Your task to perform on an android device: Go to accessibility settings Image 0: 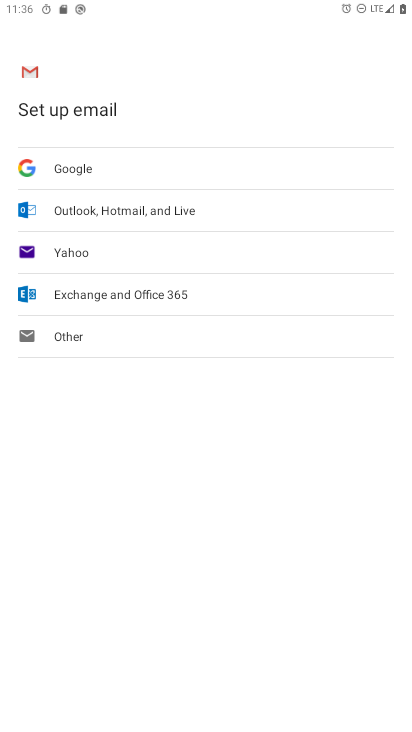
Step 0: press home button
Your task to perform on an android device: Go to accessibility settings Image 1: 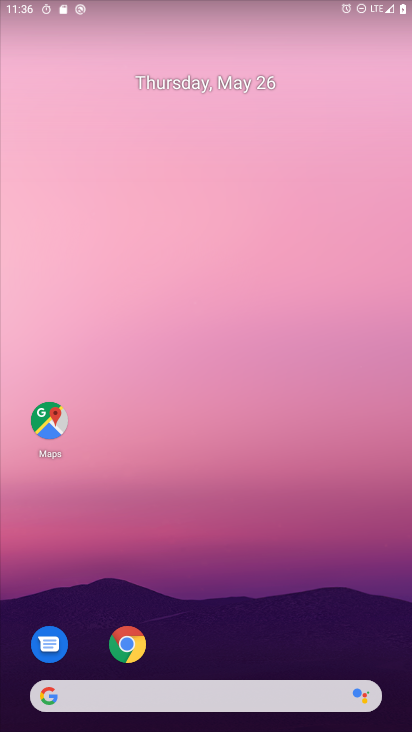
Step 1: drag from (364, 615) to (376, 130)
Your task to perform on an android device: Go to accessibility settings Image 2: 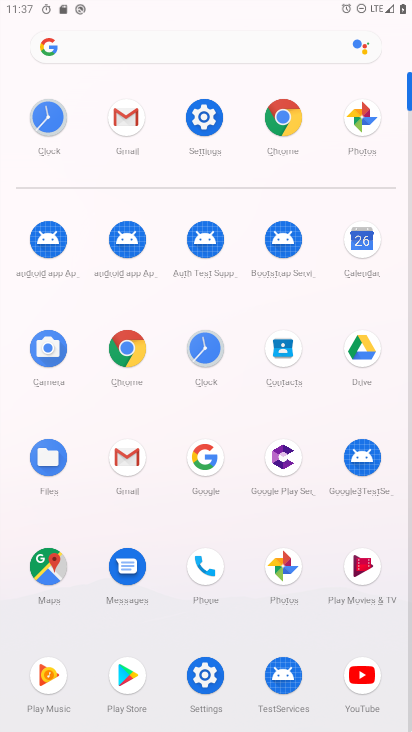
Step 2: click (212, 132)
Your task to perform on an android device: Go to accessibility settings Image 3: 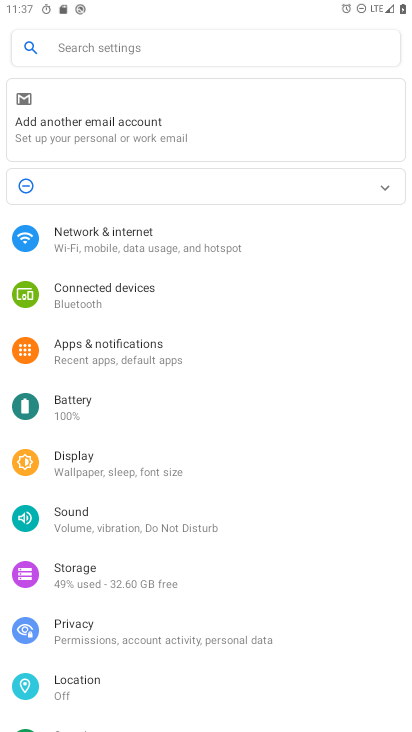
Step 3: drag from (313, 570) to (325, 433)
Your task to perform on an android device: Go to accessibility settings Image 4: 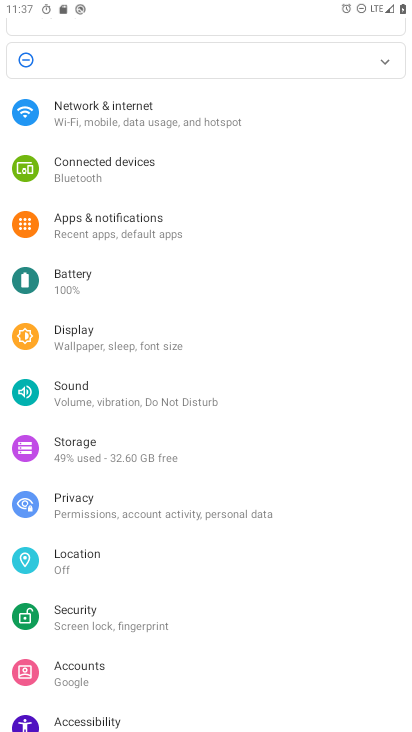
Step 4: drag from (324, 610) to (319, 435)
Your task to perform on an android device: Go to accessibility settings Image 5: 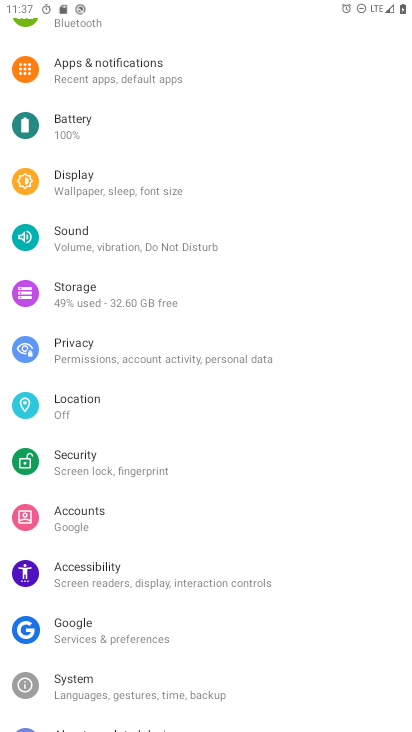
Step 5: drag from (319, 573) to (323, 404)
Your task to perform on an android device: Go to accessibility settings Image 6: 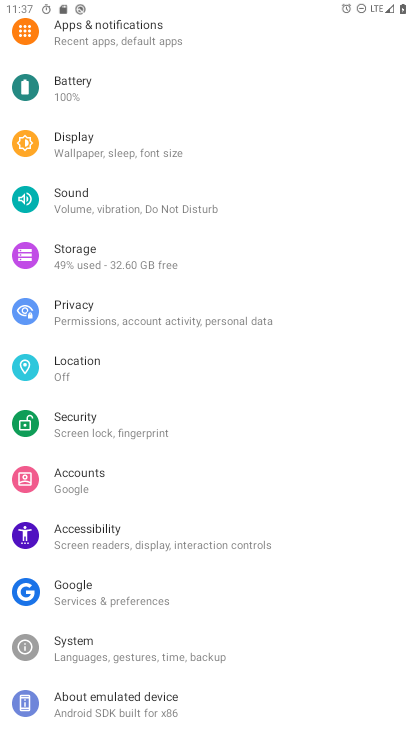
Step 6: drag from (339, 245) to (343, 358)
Your task to perform on an android device: Go to accessibility settings Image 7: 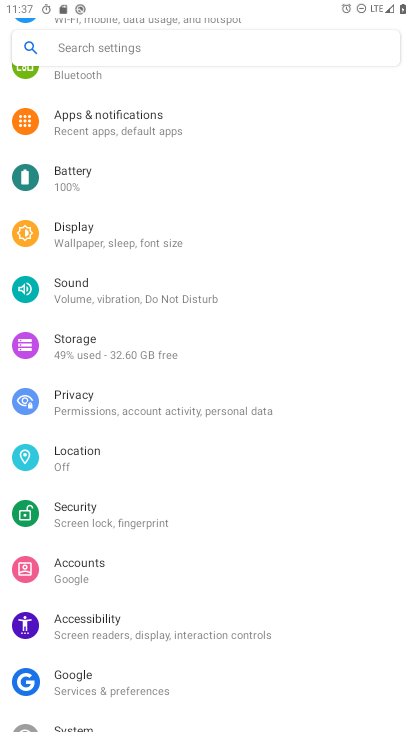
Step 7: drag from (322, 491) to (324, 286)
Your task to perform on an android device: Go to accessibility settings Image 8: 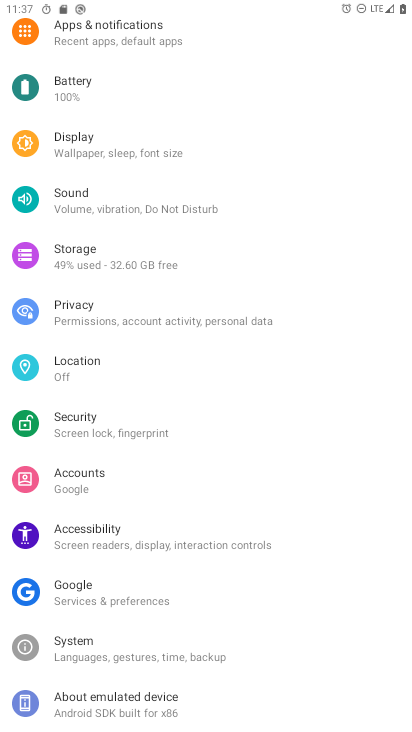
Step 8: click (172, 544)
Your task to perform on an android device: Go to accessibility settings Image 9: 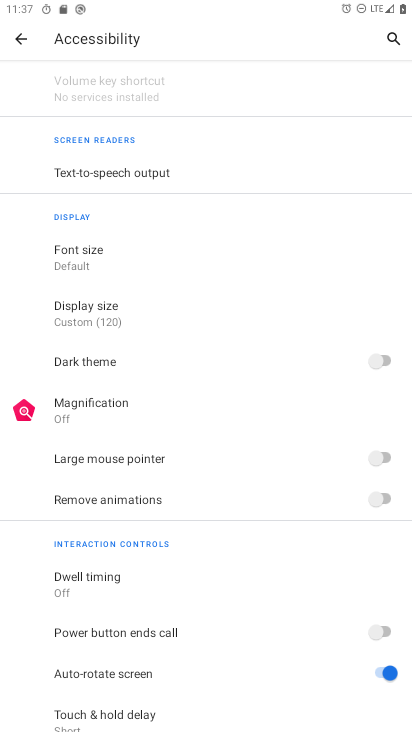
Step 9: task complete